Your task to perform on an android device: refresh tabs in the chrome app Image 0: 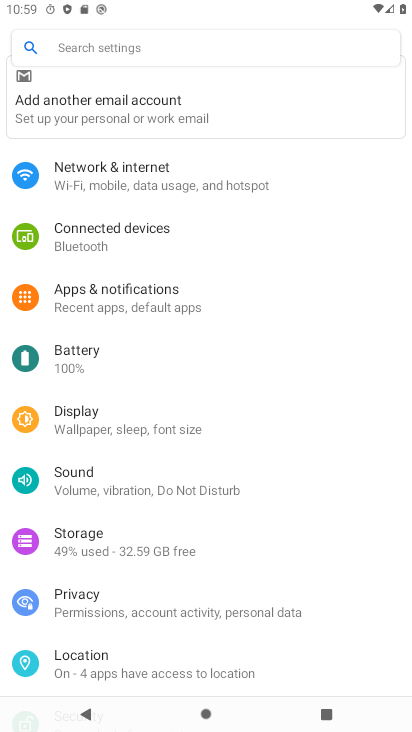
Step 0: press home button
Your task to perform on an android device: refresh tabs in the chrome app Image 1: 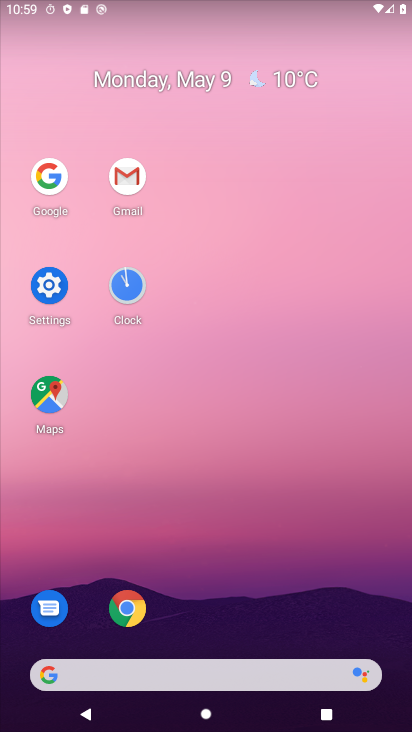
Step 1: click (135, 606)
Your task to perform on an android device: refresh tabs in the chrome app Image 2: 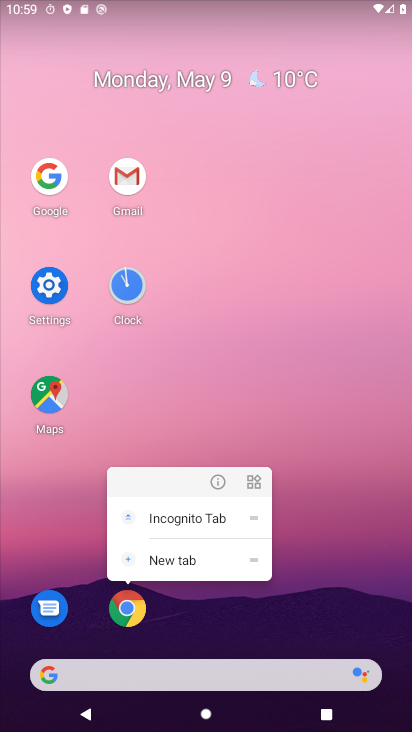
Step 2: click (142, 604)
Your task to perform on an android device: refresh tabs in the chrome app Image 3: 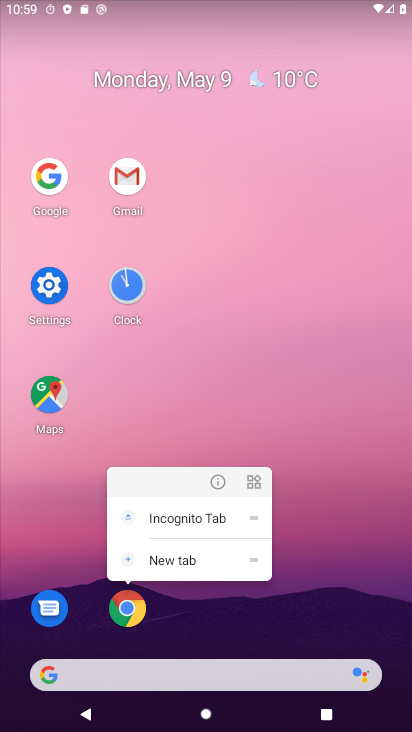
Step 3: click (117, 602)
Your task to perform on an android device: refresh tabs in the chrome app Image 4: 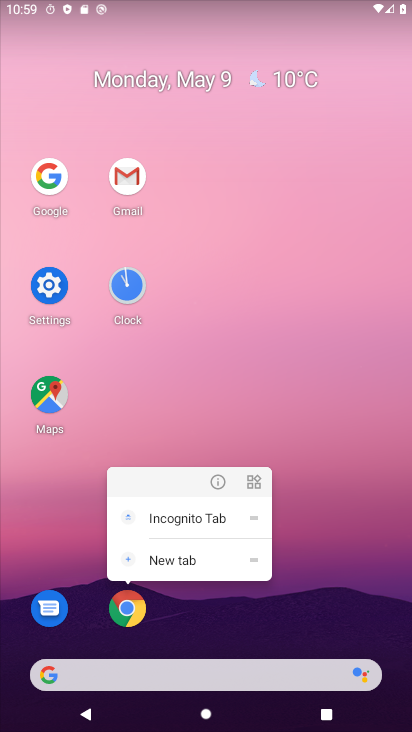
Step 4: click (124, 612)
Your task to perform on an android device: refresh tabs in the chrome app Image 5: 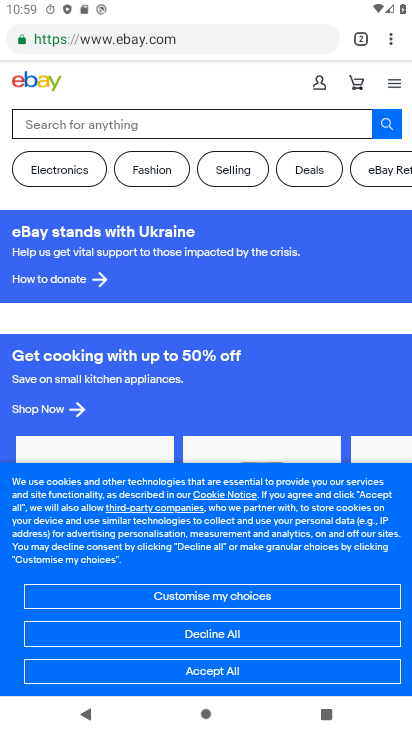
Step 5: click (387, 41)
Your task to perform on an android device: refresh tabs in the chrome app Image 6: 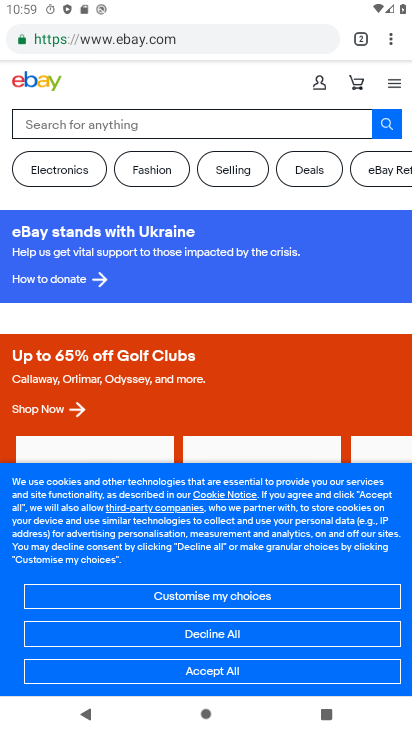
Step 6: click (404, 41)
Your task to perform on an android device: refresh tabs in the chrome app Image 7: 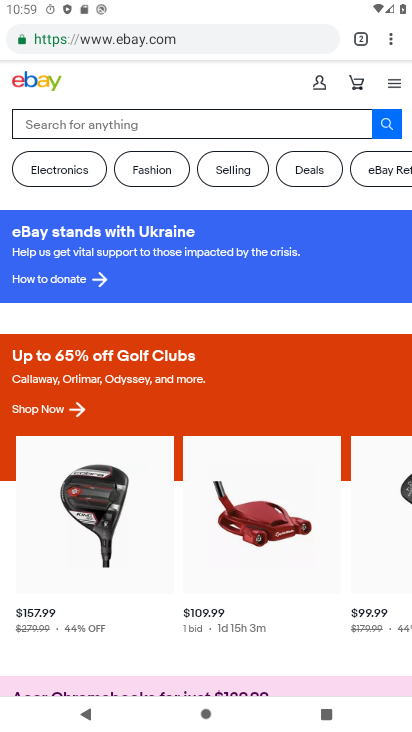
Step 7: click (391, 38)
Your task to perform on an android device: refresh tabs in the chrome app Image 8: 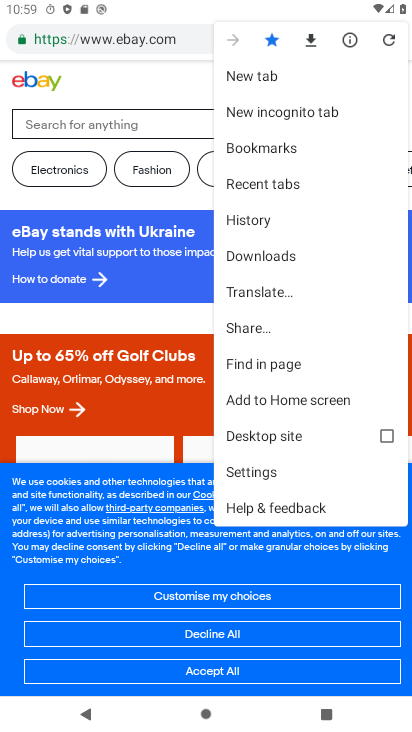
Step 8: click (400, 54)
Your task to perform on an android device: refresh tabs in the chrome app Image 9: 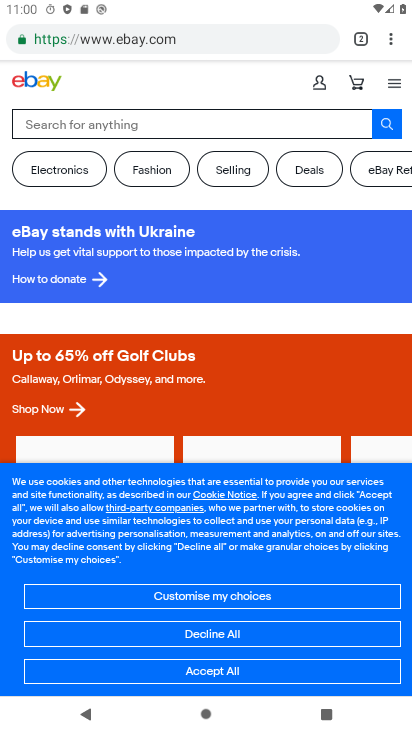
Step 9: task complete